Your task to perform on an android device: Open the Play Movies app and select the watchlist tab. Image 0: 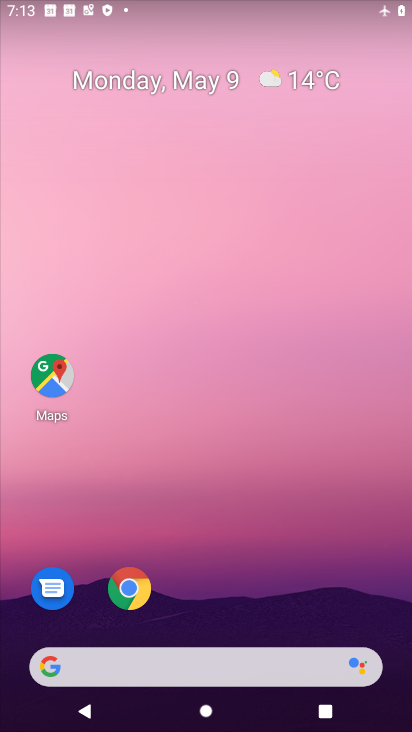
Step 0: drag from (330, 609) to (300, 112)
Your task to perform on an android device: Open the Play Movies app and select the watchlist tab. Image 1: 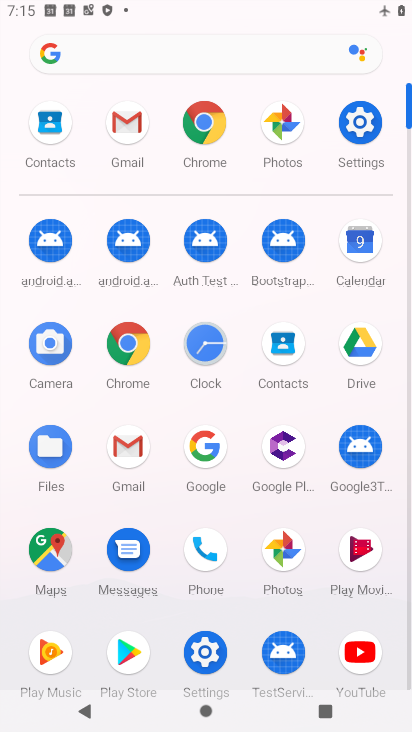
Step 1: click (362, 567)
Your task to perform on an android device: Open the Play Movies app and select the watchlist tab. Image 2: 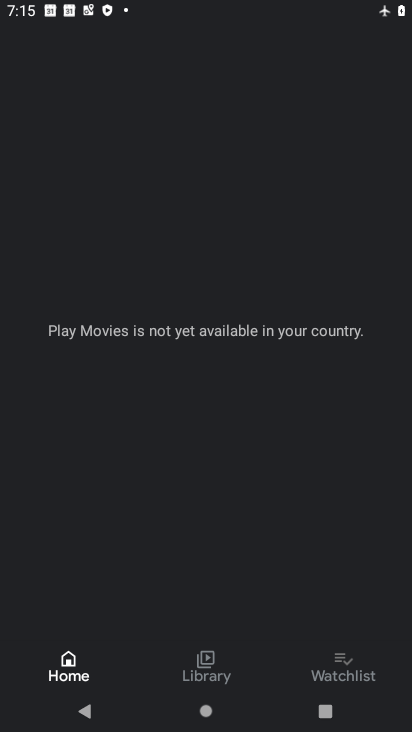
Step 2: click (347, 665)
Your task to perform on an android device: Open the Play Movies app and select the watchlist tab. Image 3: 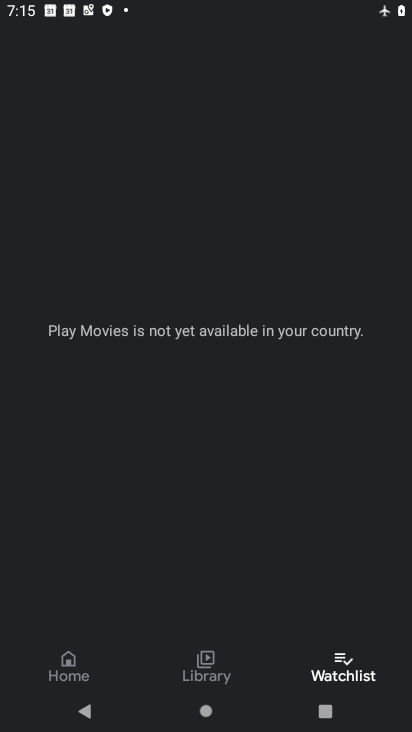
Step 3: task complete